Your task to perform on an android device: Clear the cart on bestbuy.com. Search for dell alienware on bestbuy.com, select the first entry, add it to the cart, then select checkout. Image 0: 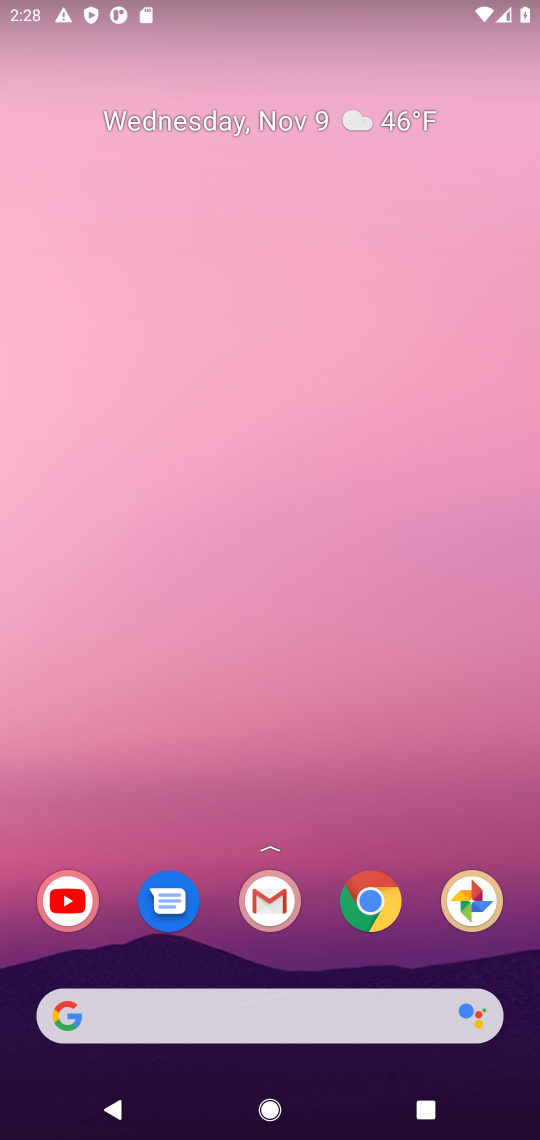
Step 0: click (381, 898)
Your task to perform on an android device: Clear the cart on bestbuy.com. Search for dell alienware on bestbuy.com, select the first entry, add it to the cart, then select checkout. Image 1: 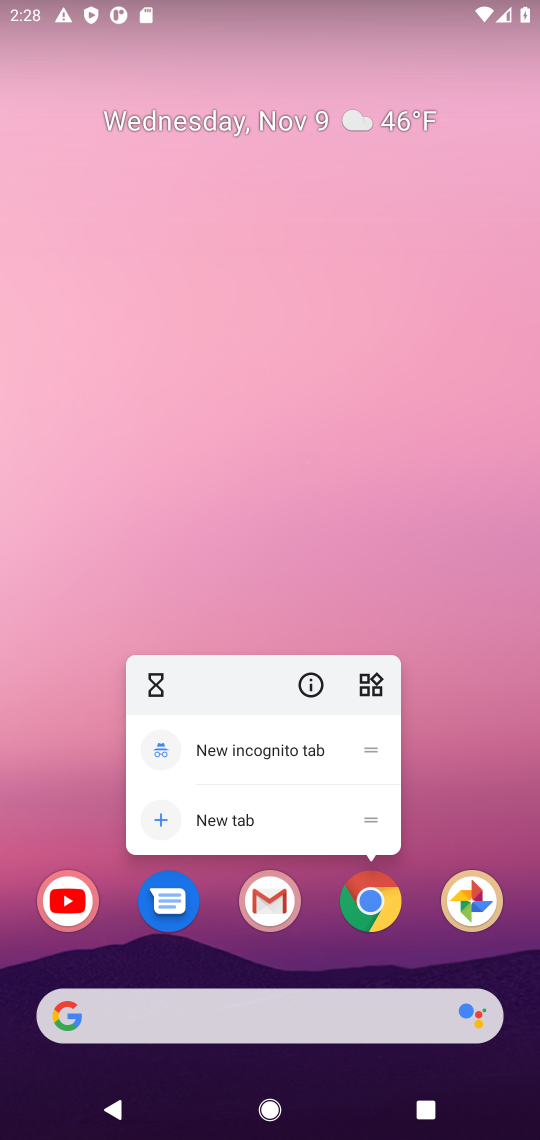
Step 1: click (381, 899)
Your task to perform on an android device: Clear the cart on bestbuy.com. Search for dell alienware on bestbuy.com, select the first entry, add it to the cart, then select checkout. Image 2: 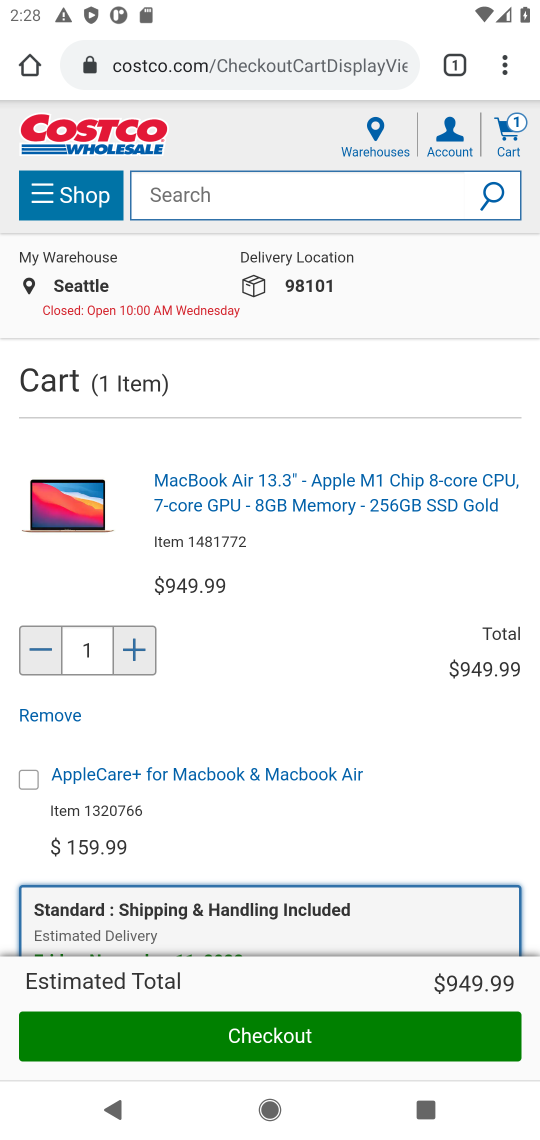
Step 2: click (348, 75)
Your task to perform on an android device: Clear the cart on bestbuy.com. Search for dell alienware on bestbuy.com, select the first entry, add it to the cart, then select checkout. Image 3: 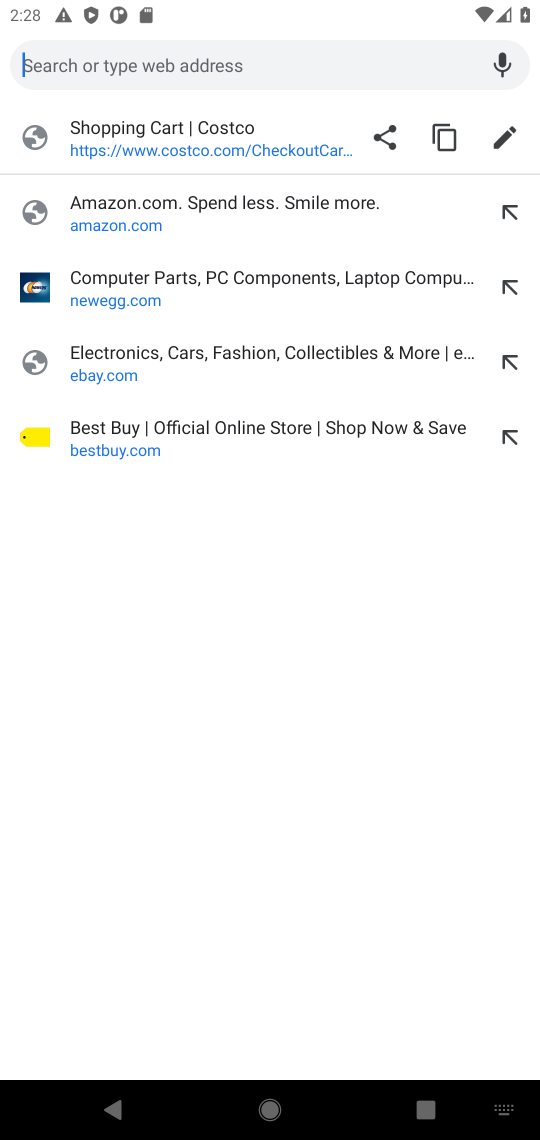
Step 3: click (222, 426)
Your task to perform on an android device: Clear the cart on bestbuy.com. Search for dell alienware on bestbuy.com, select the first entry, add it to the cart, then select checkout. Image 4: 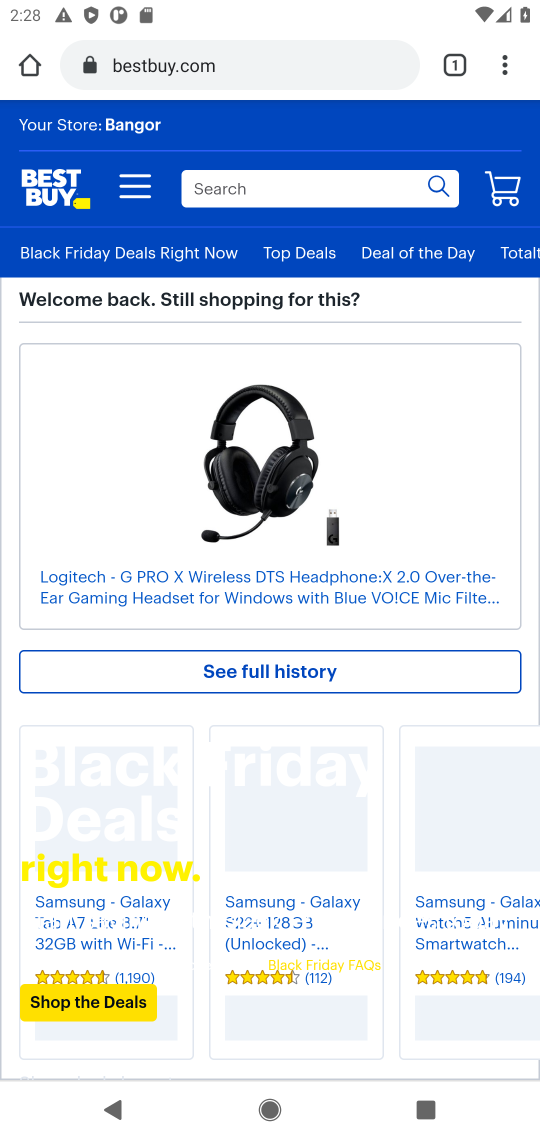
Step 4: click (511, 188)
Your task to perform on an android device: Clear the cart on bestbuy.com. Search for dell alienware on bestbuy.com, select the first entry, add it to the cart, then select checkout. Image 5: 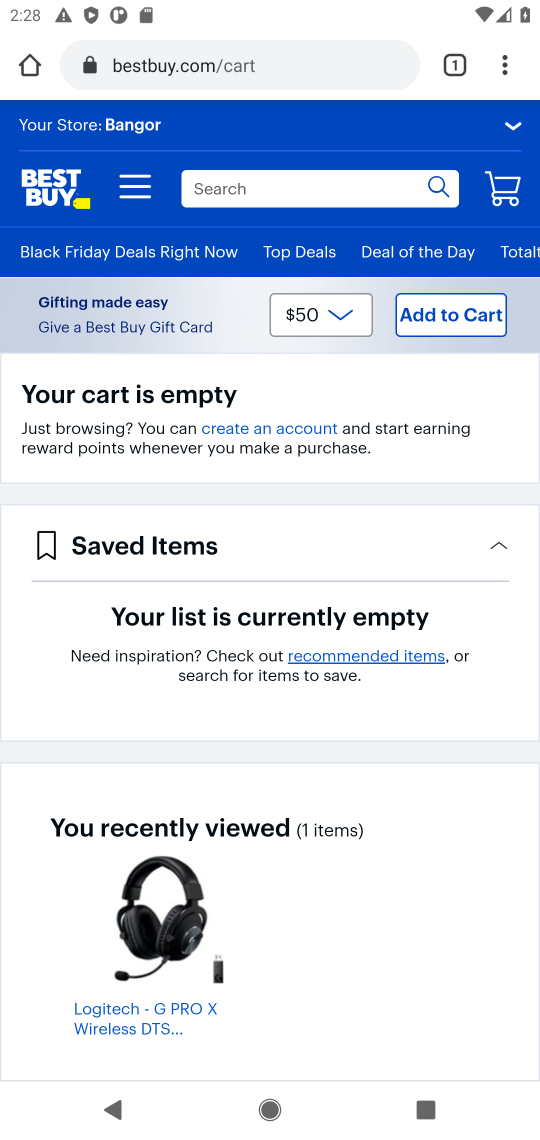
Step 5: click (302, 189)
Your task to perform on an android device: Clear the cart on bestbuy.com. Search for dell alienware on bestbuy.com, select the first entry, add it to the cart, then select checkout. Image 6: 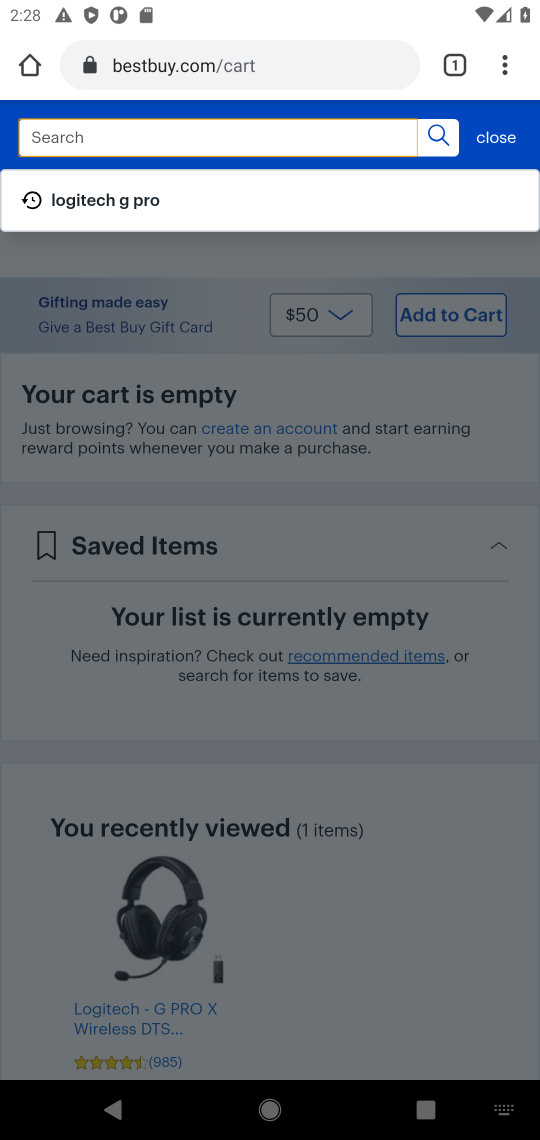
Step 6: type "dell alienware"
Your task to perform on an android device: Clear the cart on bestbuy.com. Search for dell alienware on bestbuy.com, select the first entry, add it to the cart, then select checkout. Image 7: 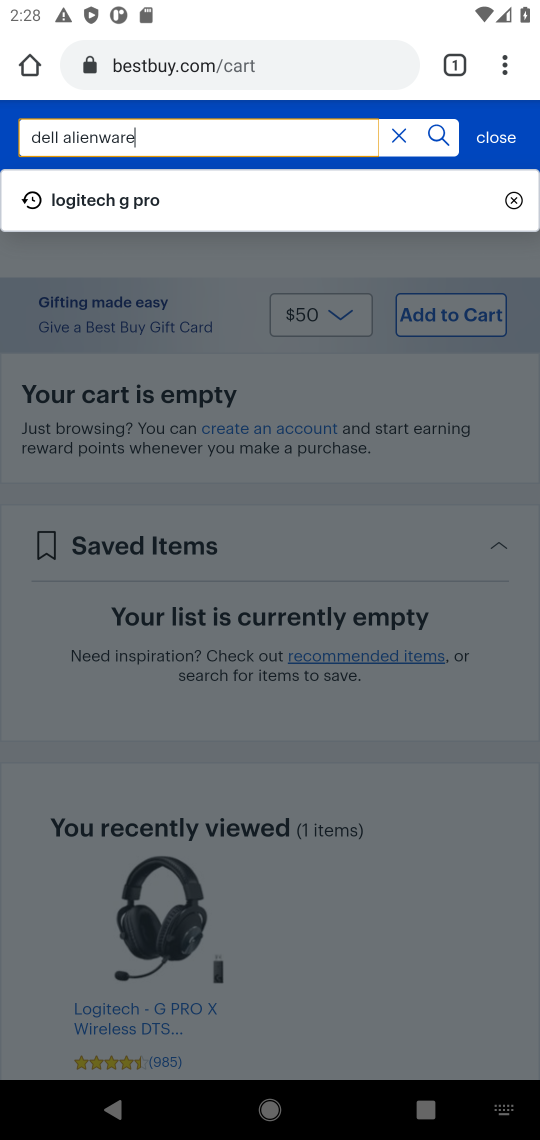
Step 7: press enter
Your task to perform on an android device: Clear the cart on bestbuy.com. Search for dell alienware on bestbuy.com, select the first entry, add it to the cart, then select checkout. Image 8: 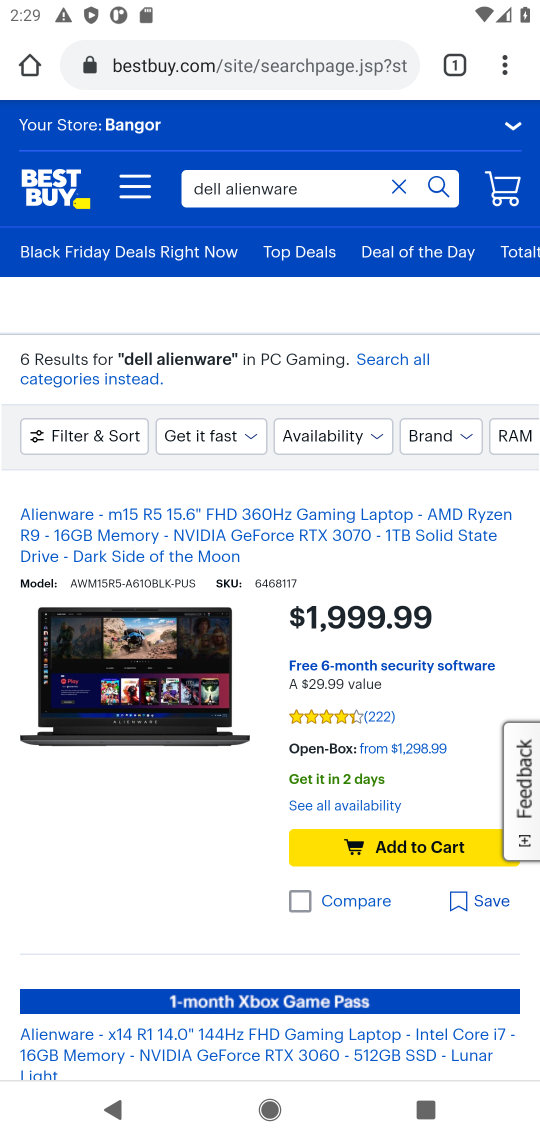
Step 8: drag from (199, 754) to (480, 170)
Your task to perform on an android device: Clear the cart on bestbuy.com. Search for dell alienware on bestbuy.com, select the first entry, add it to the cart, then select checkout. Image 9: 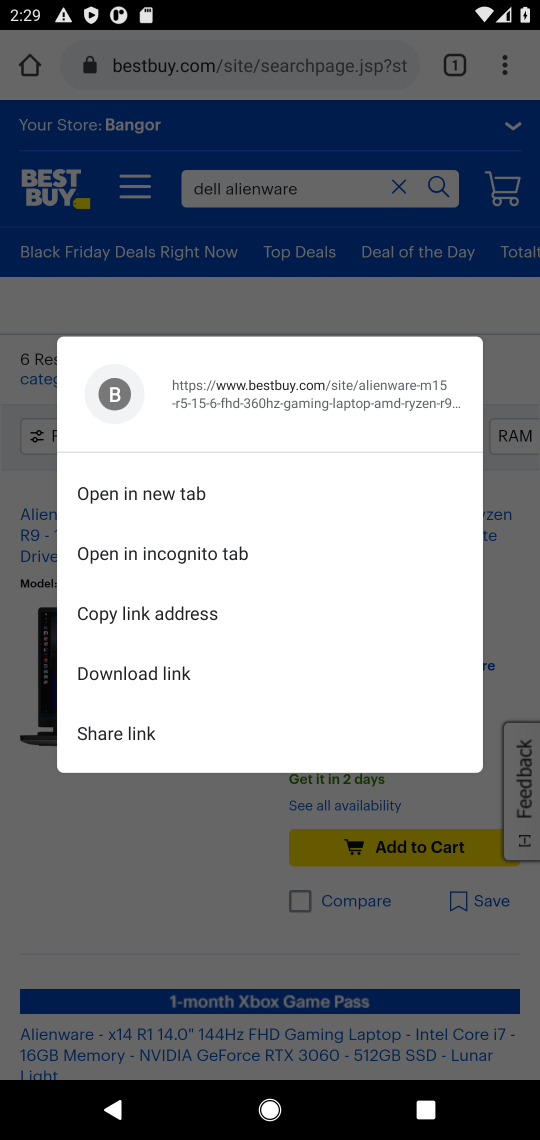
Step 9: click (129, 857)
Your task to perform on an android device: Clear the cart on bestbuy.com. Search for dell alienware on bestbuy.com, select the first entry, add it to the cart, then select checkout. Image 10: 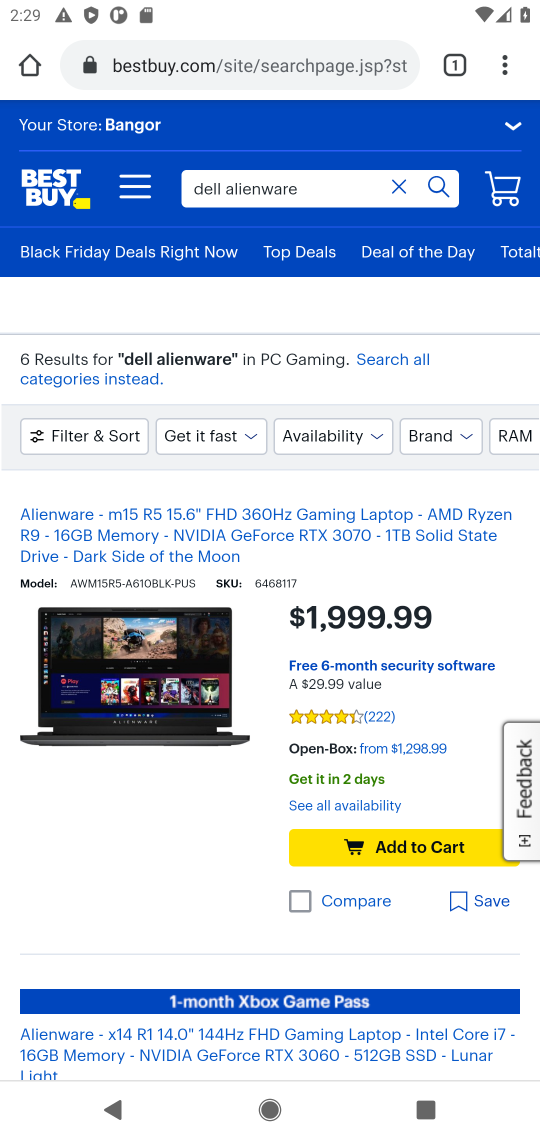
Step 10: drag from (130, 854) to (344, 176)
Your task to perform on an android device: Clear the cart on bestbuy.com. Search for dell alienware on bestbuy.com, select the first entry, add it to the cart, then select checkout. Image 11: 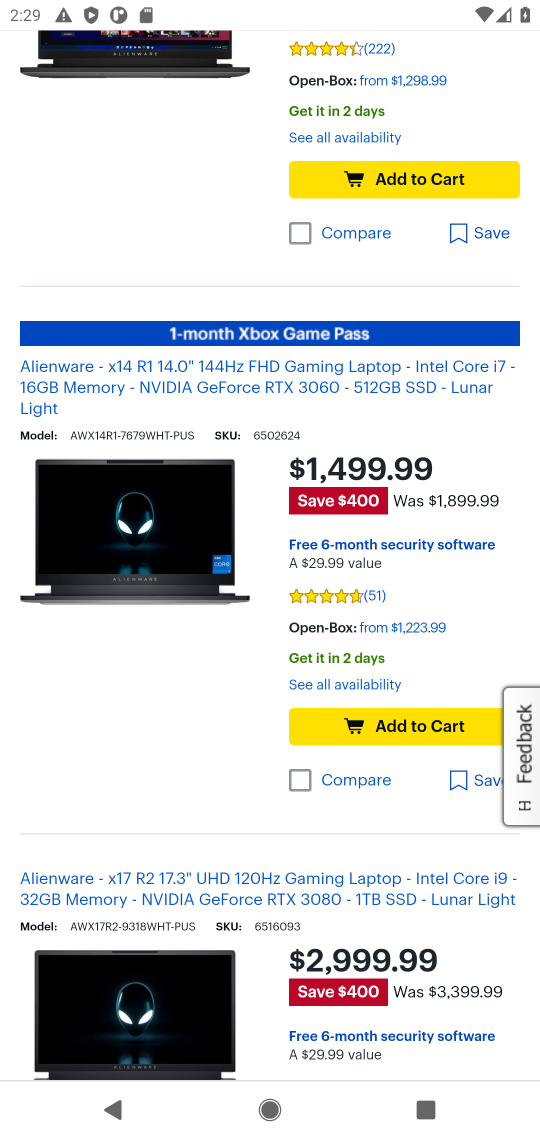
Step 11: drag from (302, 900) to (447, 406)
Your task to perform on an android device: Clear the cart on bestbuy.com. Search for dell alienware on bestbuy.com, select the first entry, add it to the cart, then select checkout. Image 12: 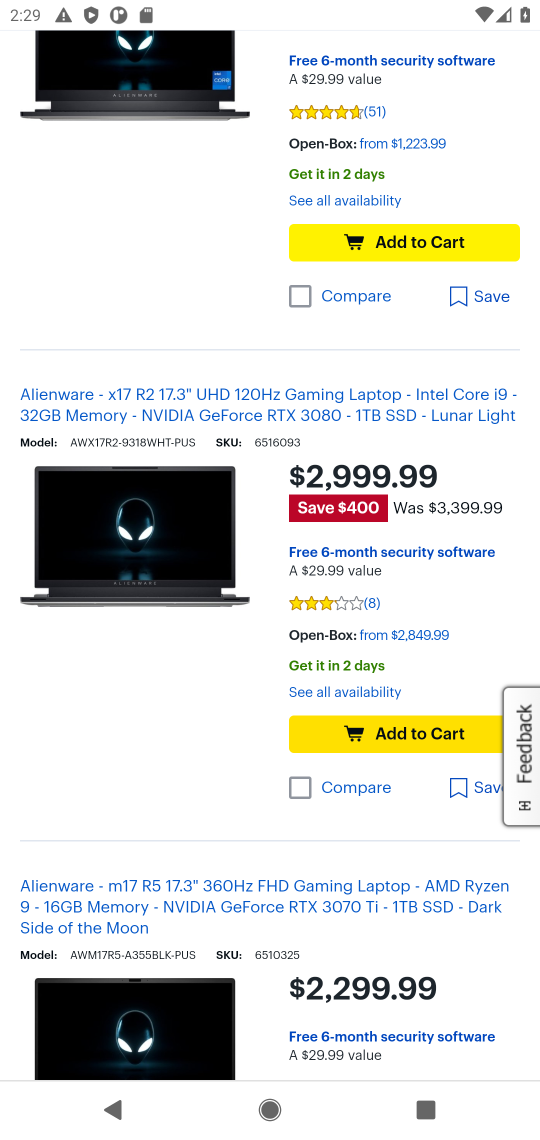
Step 12: drag from (360, 919) to (417, 290)
Your task to perform on an android device: Clear the cart on bestbuy.com. Search for dell alienware on bestbuy.com, select the first entry, add it to the cart, then select checkout. Image 13: 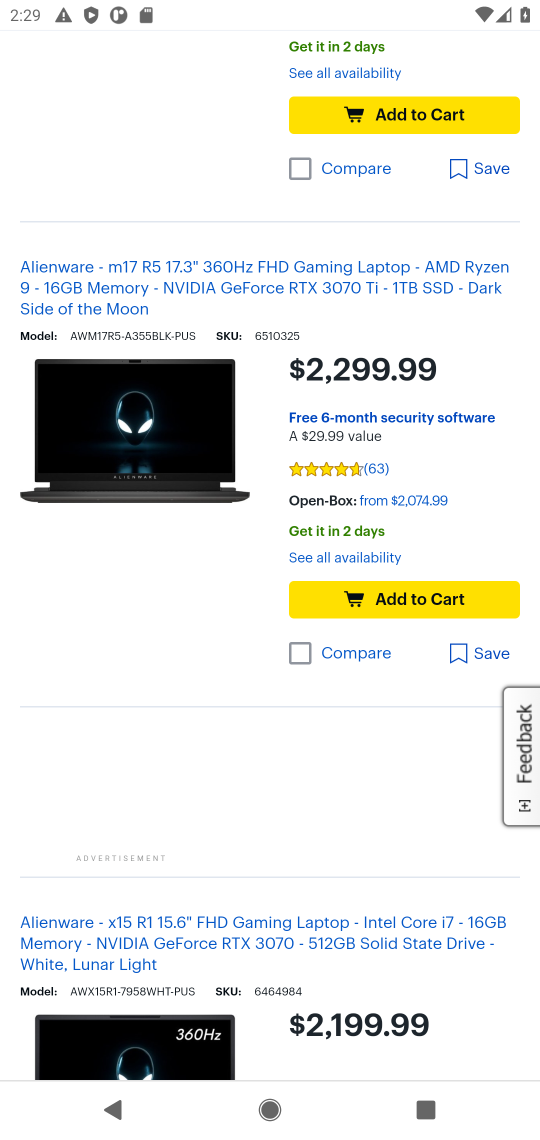
Step 13: drag from (490, 862) to (477, 364)
Your task to perform on an android device: Clear the cart on bestbuy.com. Search for dell alienware on bestbuy.com, select the first entry, add it to the cart, then select checkout. Image 14: 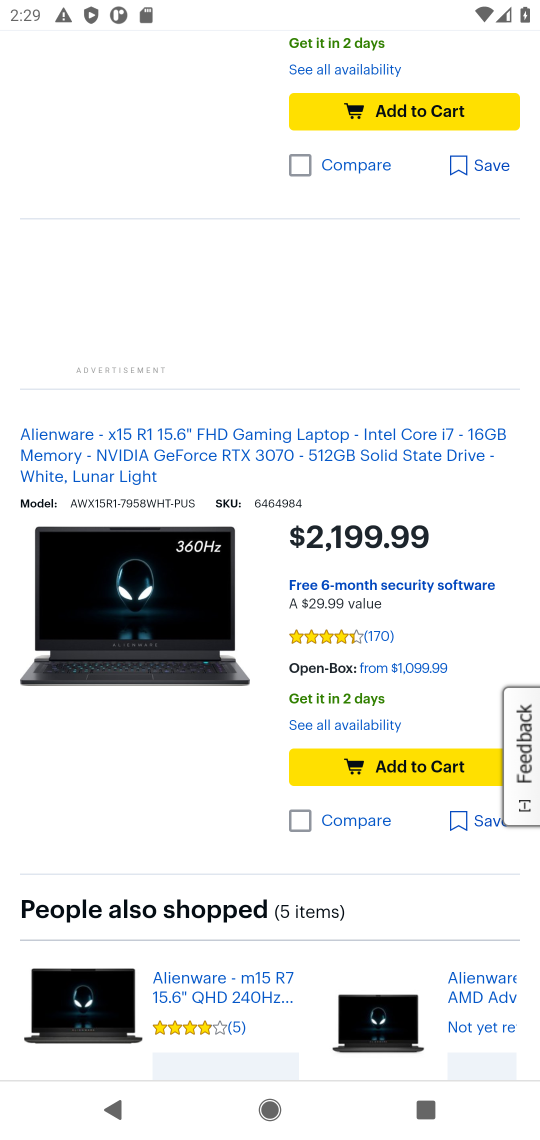
Step 14: drag from (366, 937) to (434, 331)
Your task to perform on an android device: Clear the cart on bestbuy.com. Search for dell alienware on bestbuy.com, select the first entry, add it to the cart, then select checkout. Image 15: 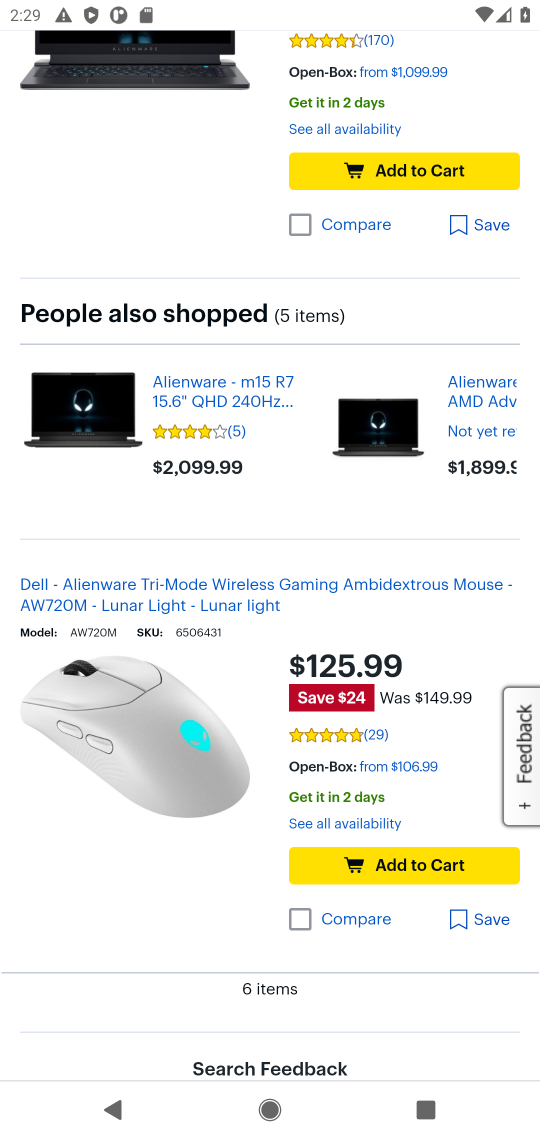
Step 15: drag from (234, 799) to (258, 700)
Your task to perform on an android device: Clear the cart on bestbuy.com. Search for dell alienware on bestbuy.com, select the first entry, add it to the cart, then select checkout. Image 16: 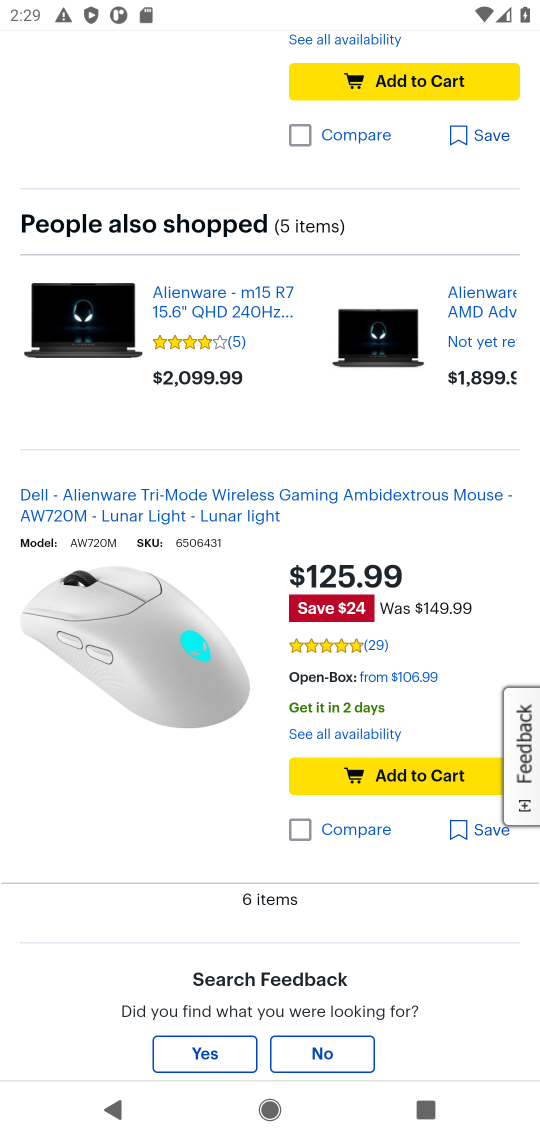
Step 16: click (134, 608)
Your task to perform on an android device: Clear the cart on bestbuy.com. Search for dell alienware on bestbuy.com, select the first entry, add it to the cart, then select checkout. Image 17: 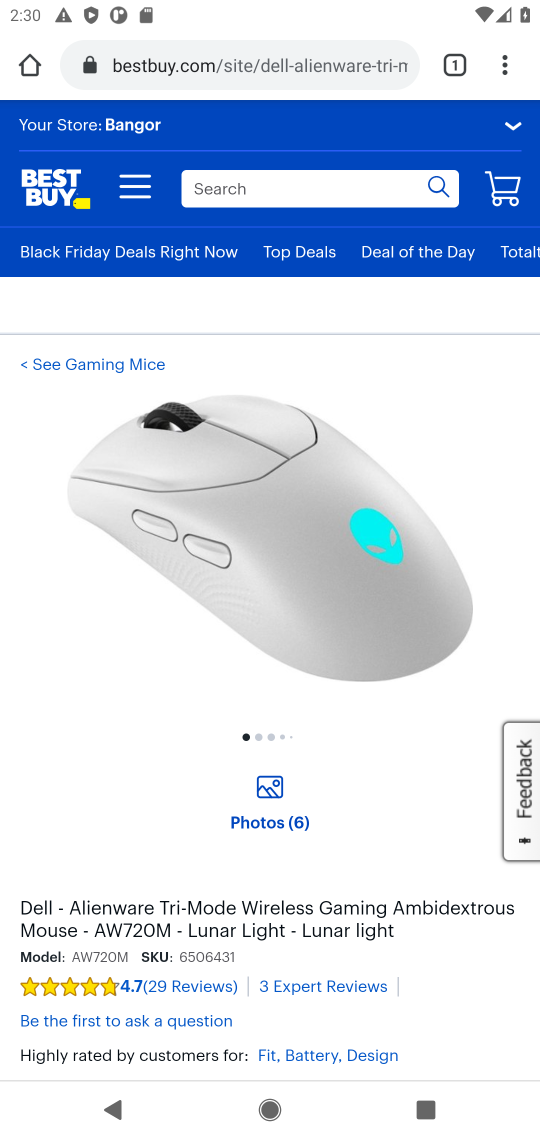
Step 17: drag from (349, 945) to (365, 365)
Your task to perform on an android device: Clear the cart on bestbuy.com. Search for dell alienware on bestbuy.com, select the first entry, add it to the cart, then select checkout. Image 18: 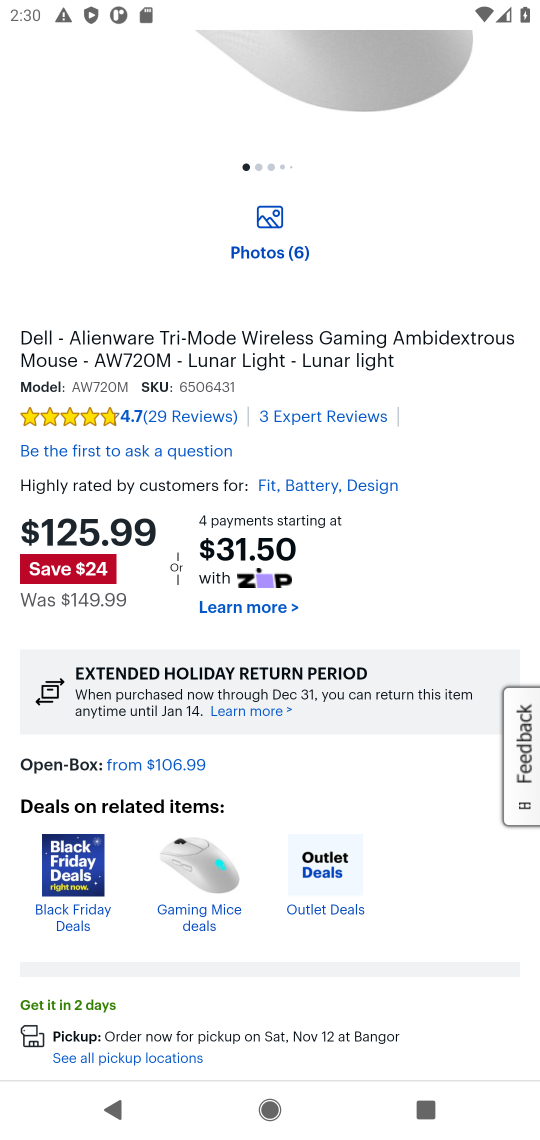
Step 18: drag from (462, 938) to (496, 420)
Your task to perform on an android device: Clear the cart on bestbuy.com. Search for dell alienware on bestbuy.com, select the first entry, add it to the cart, then select checkout. Image 19: 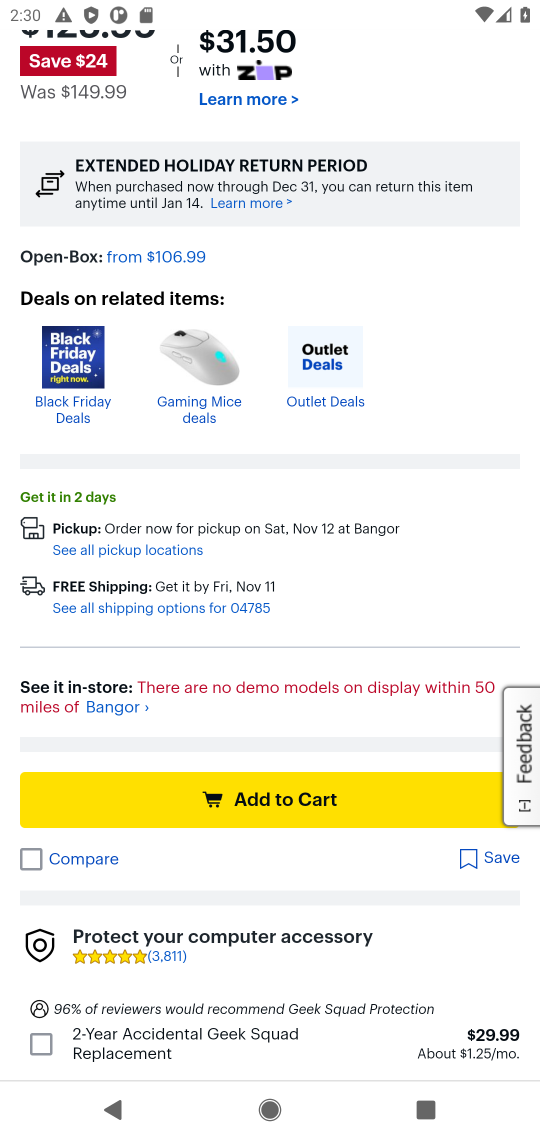
Step 19: click (349, 806)
Your task to perform on an android device: Clear the cart on bestbuy.com. Search for dell alienware on bestbuy.com, select the first entry, add it to the cart, then select checkout. Image 20: 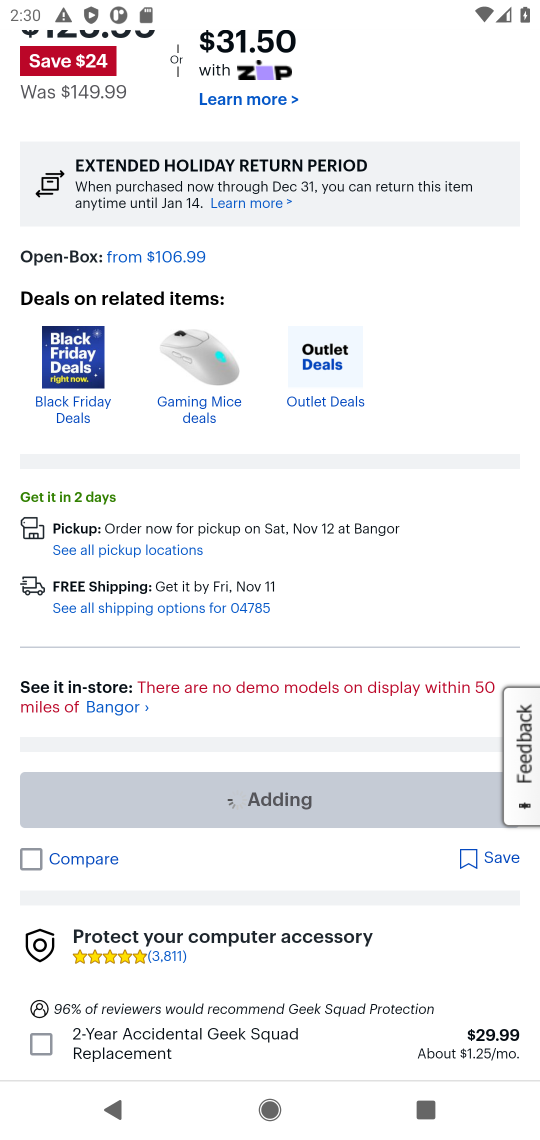
Step 20: task complete